Your task to perform on an android device: toggle improve location accuracy Image 0: 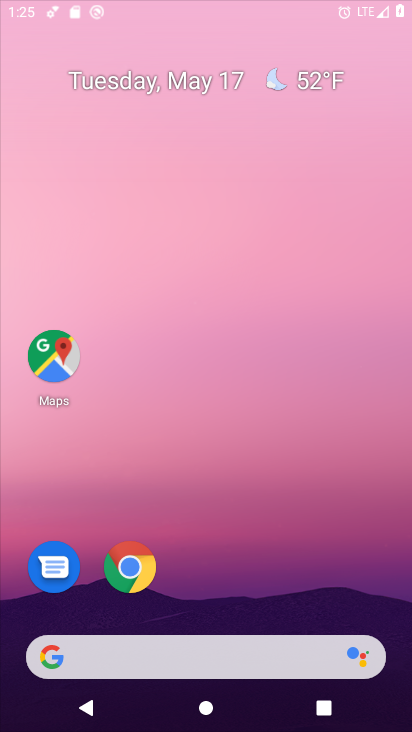
Step 0: drag from (219, 602) to (212, 362)
Your task to perform on an android device: toggle improve location accuracy Image 1: 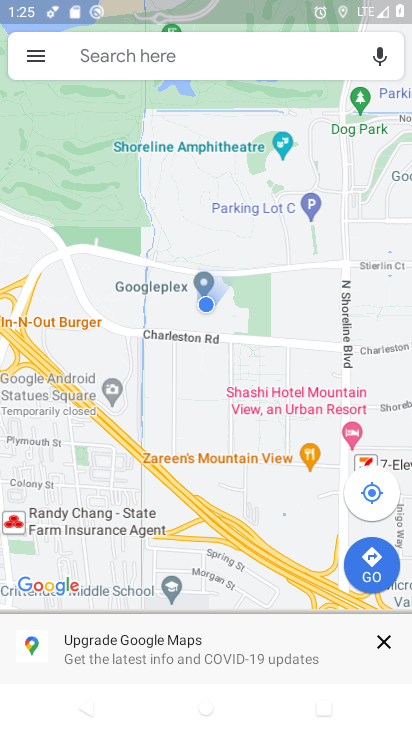
Step 1: press home button
Your task to perform on an android device: toggle improve location accuracy Image 2: 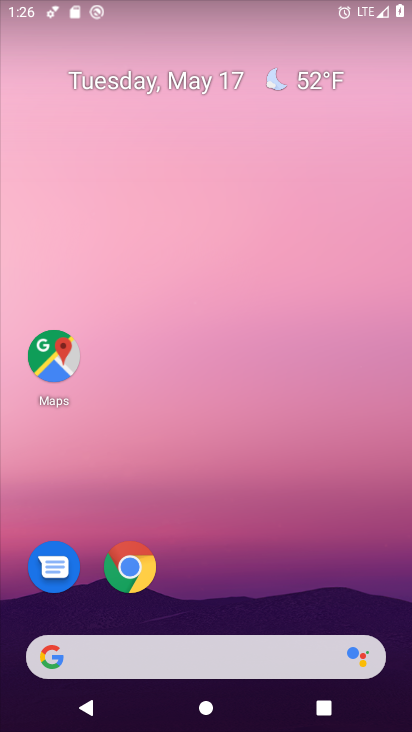
Step 2: drag from (206, 597) to (236, 139)
Your task to perform on an android device: toggle improve location accuracy Image 3: 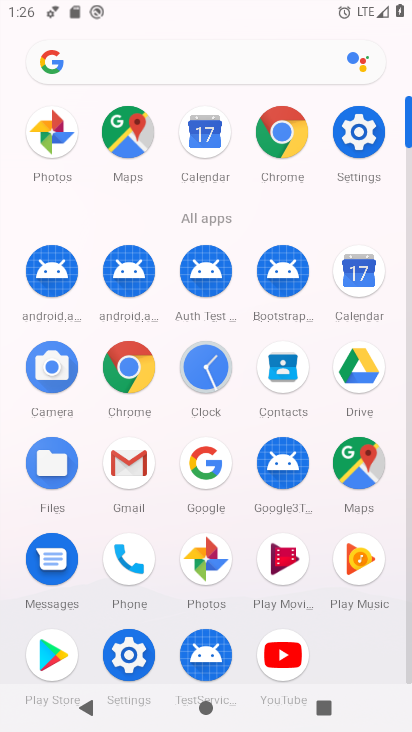
Step 3: click (131, 651)
Your task to perform on an android device: toggle improve location accuracy Image 4: 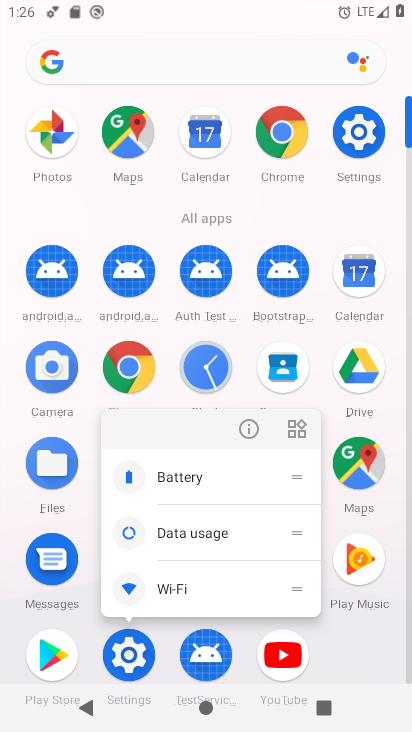
Step 4: click (141, 645)
Your task to perform on an android device: toggle improve location accuracy Image 5: 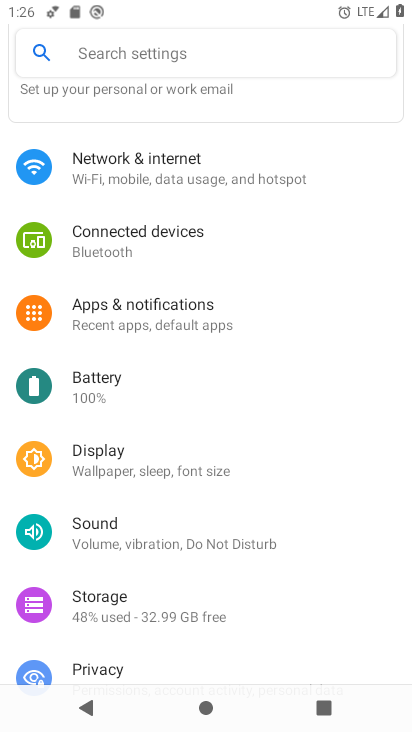
Step 5: drag from (145, 656) to (225, 245)
Your task to perform on an android device: toggle improve location accuracy Image 6: 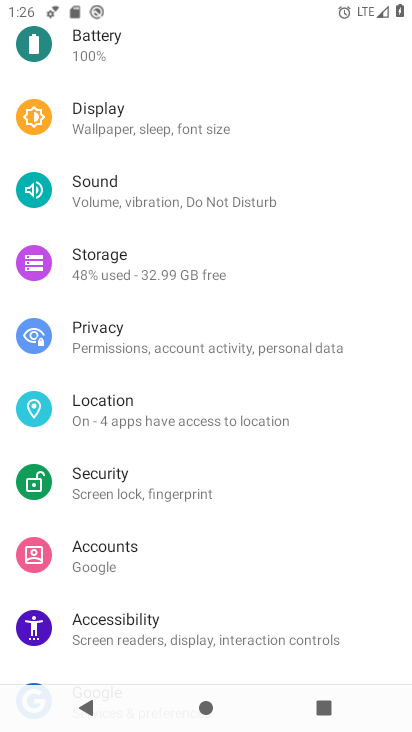
Step 6: click (105, 422)
Your task to perform on an android device: toggle improve location accuracy Image 7: 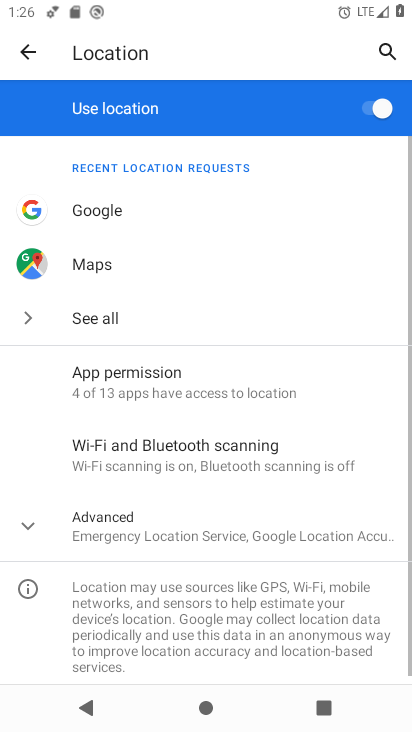
Step 7: click (108, 528)
Your task to perform on an android device: toggle improve location accuracy Image 8: 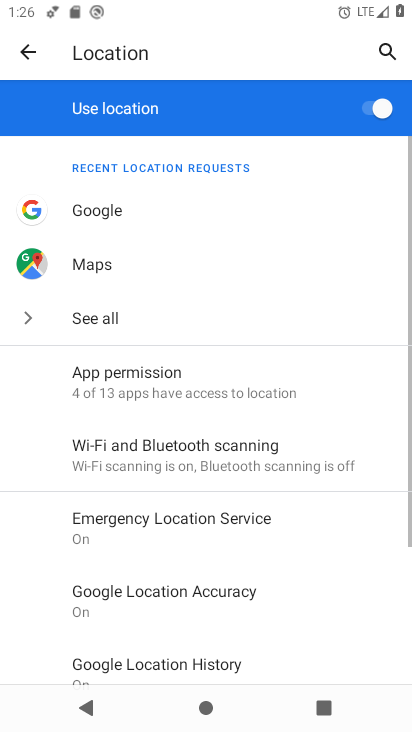
Step 8: drag from (123, 639) to (162, 396)
Your task to perform on an android device: toggle improve location accuracy Image 9: 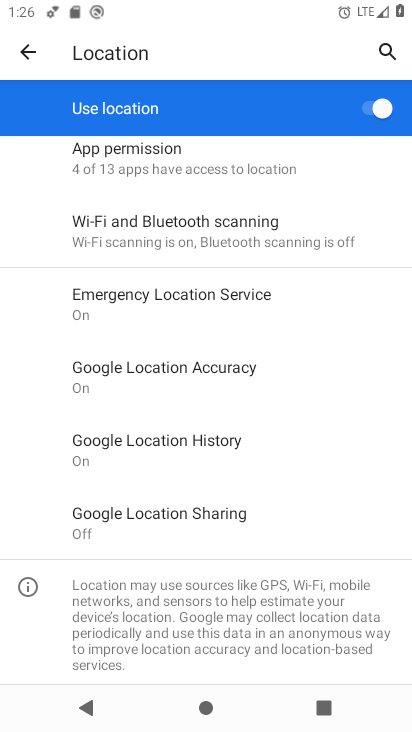
Step 9: click (154, 385)
Your task to perform on an android device: toggle improve location accuracy Image 10: 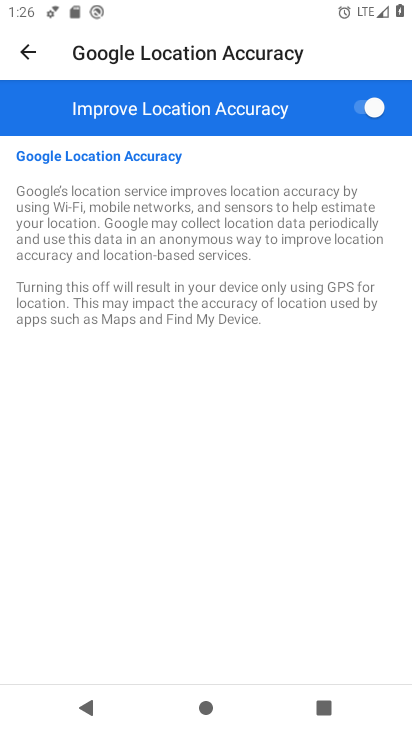
Step 10: click (362, 105)
Your task to perform on an android device: toggle improve location accuracy Image 11: 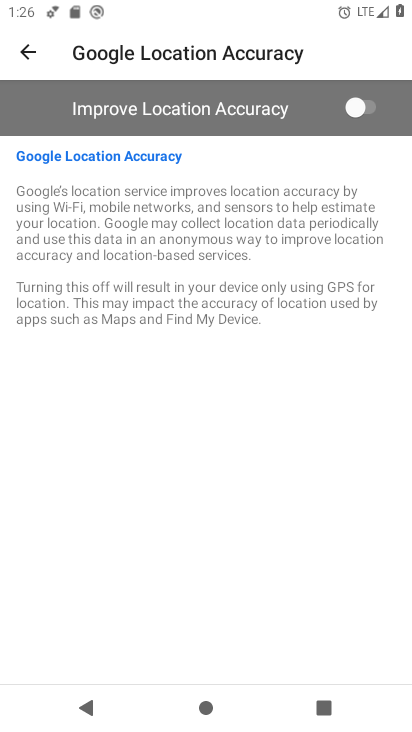
Step 11: task complete